Your task to perform on an android device: choose inbox layout in the gmail app Image 0: 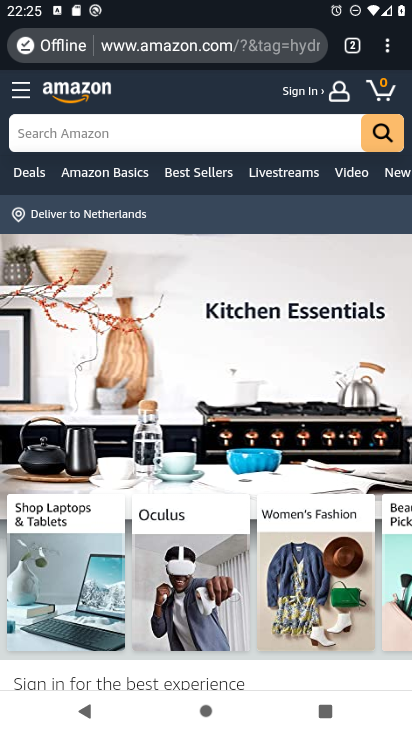
Step 0: press home button
Your task to perform on an android device: choose inbox layout in the gmail app Image 1: 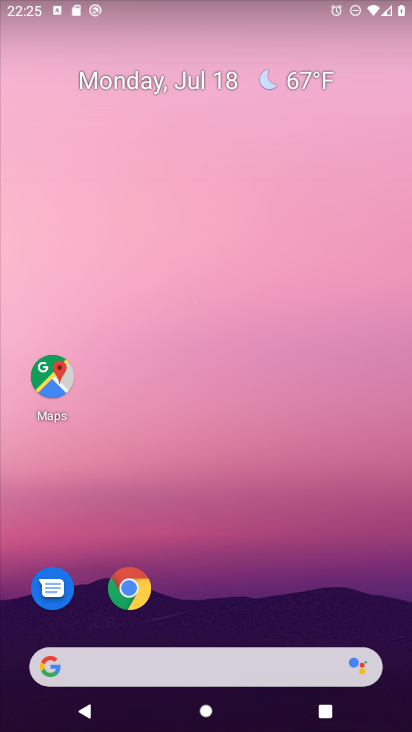
Step 1: drag from (373, 614) to (332, 247)
Your task to perform on an android device: choose inbox layout in the gmail app Image 2: 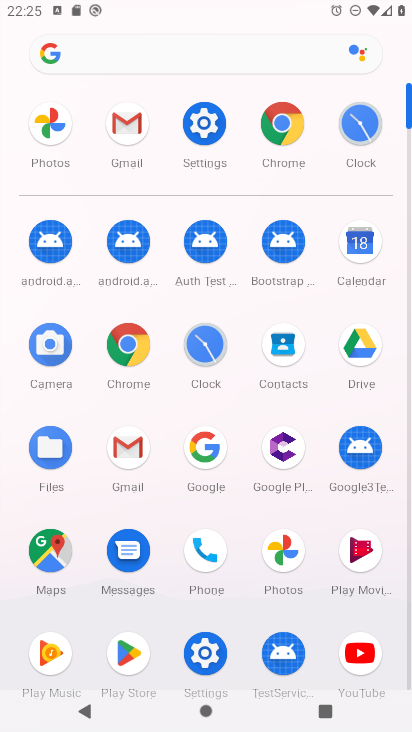
Step 2: click (124, 444)
Your task to perform on an android device: choose inbox layout in the gmail app Image 3: 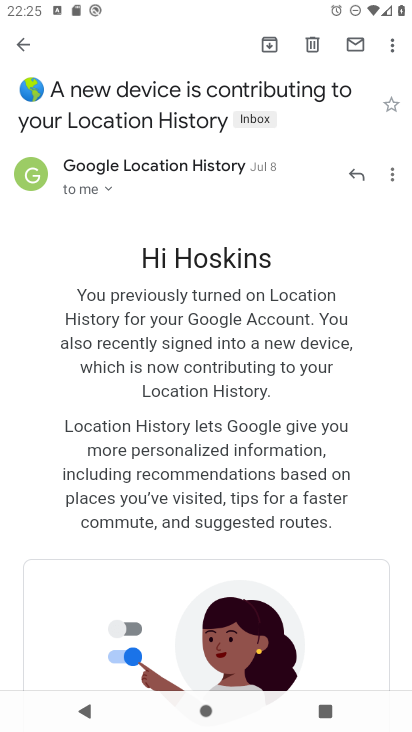
Step 3: press back button
Your task to perform on an android device: choose inbox layout in the gmail app Image 4: 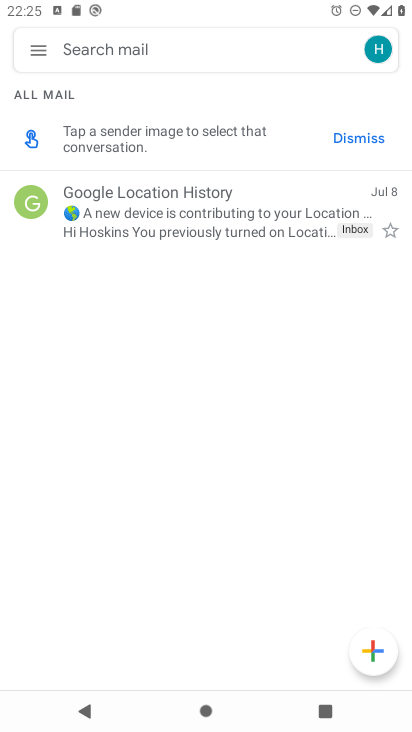
Step 4: click (31, 49)
Your task to perform on an android device: choose inbox layout in the gmail app Image 5: 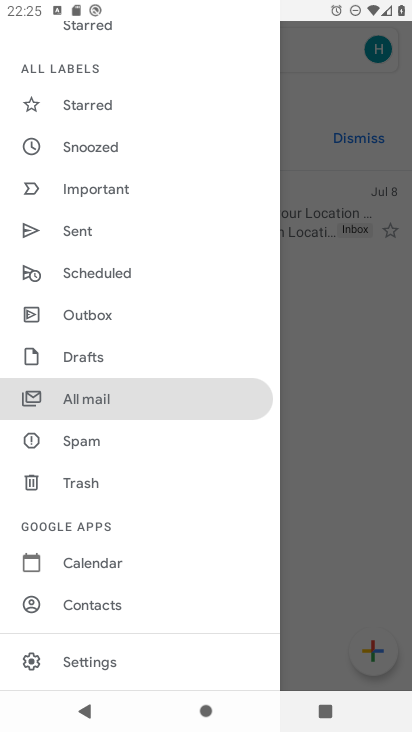
Step 5: click (106, 661)
Your task to perform on an android device: choose inbox layout in the gmail app Image 6: 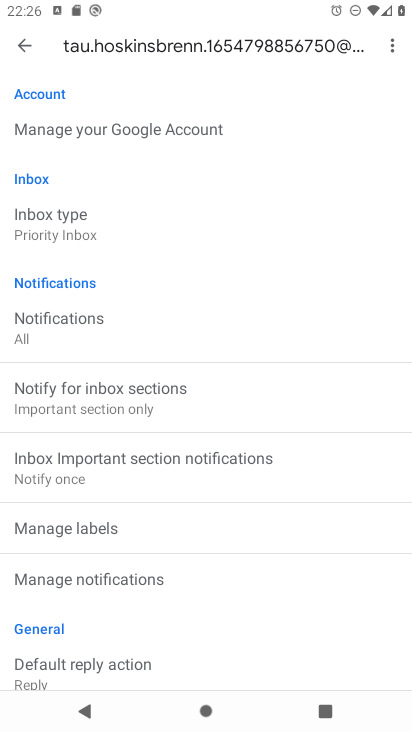
Step 6: click (58, 214)
Your task to perform on an android device: choose inbox layout in the gmail app Image 7: 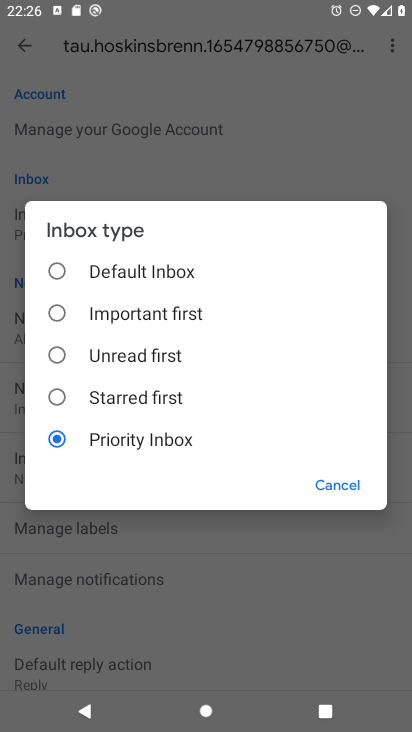
Step 7: click (56, 266)
Your task to perform on an android device: choose inbox layout in the gmail app Image 8: 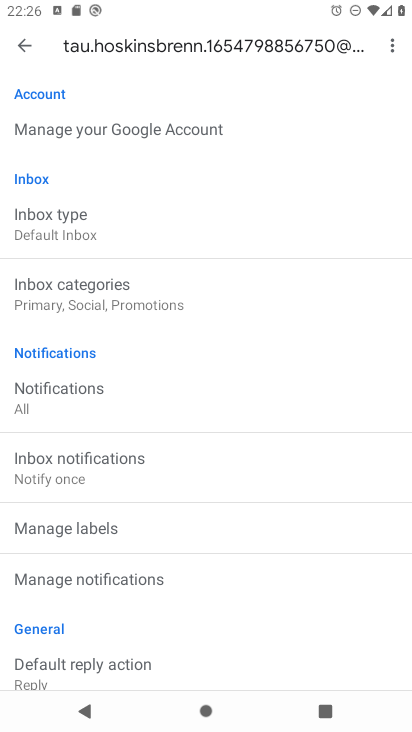
Step 8: task complete